Your task to perform on an android device: Search for Mexican restaurants on Maps Image 0: 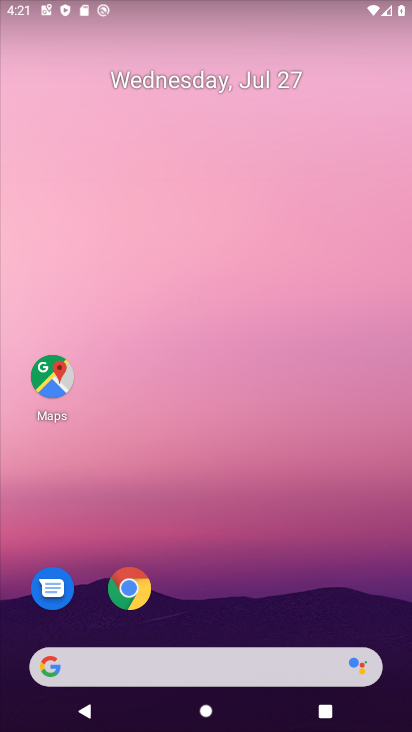
Step 0: drag from (235, 716) to (235, 182)
Your task to perform on an android device: Search for Mexican restaurants on Maps Image 1: 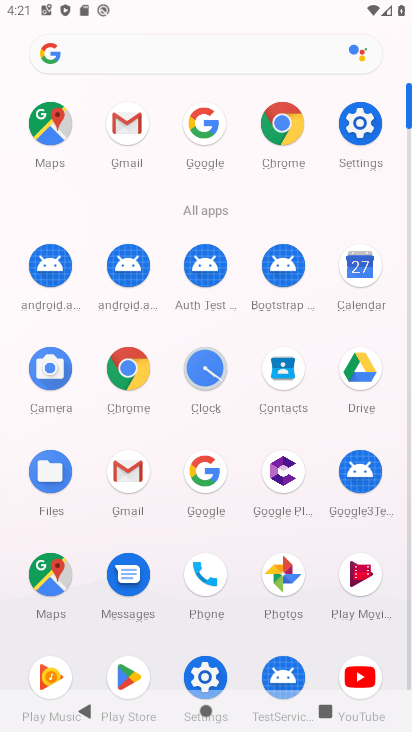
Step 1: click (53, 573)
Your task to perform on an android device: Search for Mexican restaurants on Maps Image 2: 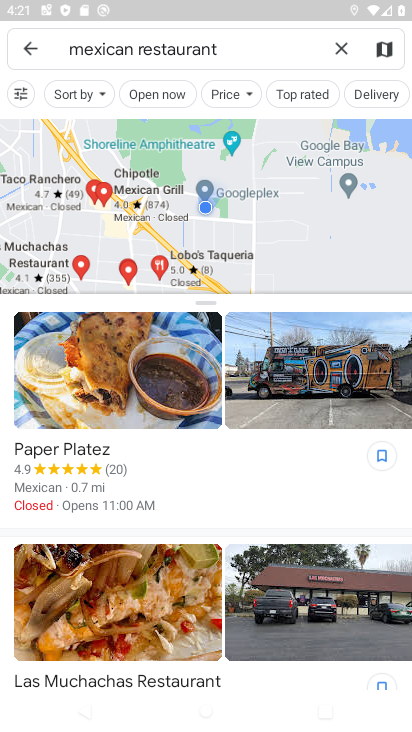
Step 2: task complete